Your task to perform on an android device: turn pop-ups off in chrome Image 0: 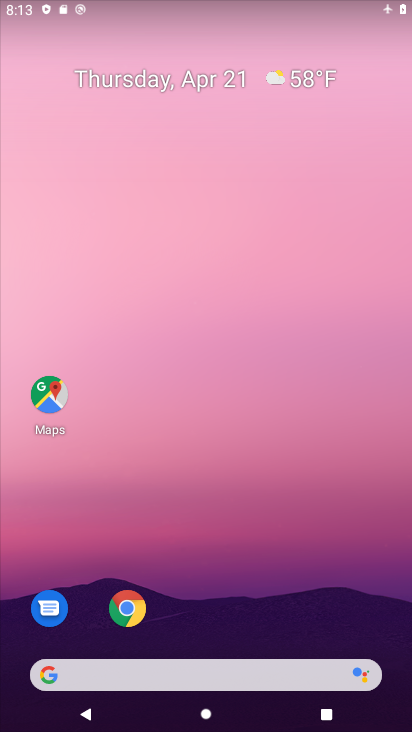
Step 0: click (131, 613)
Your task to perform on an android device: turn pop-ups off in chrome Image 1: 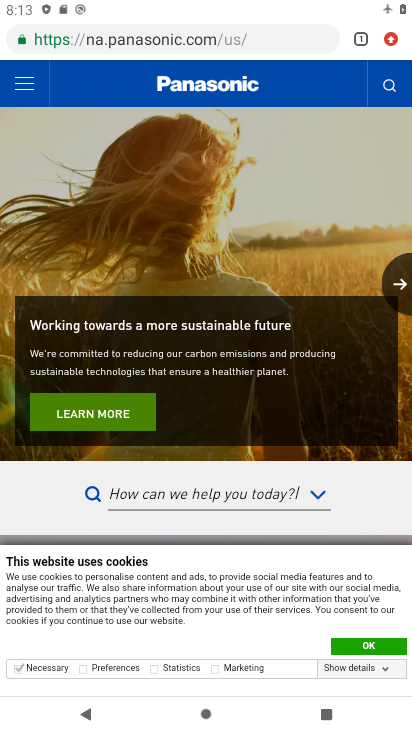
Step 1: click (390, 37)
Your task to perform on an android device: turn pop-ups off in chrome Image 2: 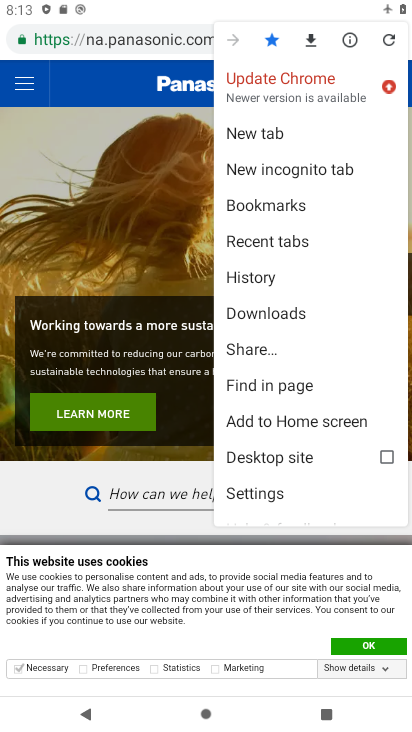
Step 2: click (279, 486)
Your task to perform on an android device: turn pop-ups off in chrome Image 3: 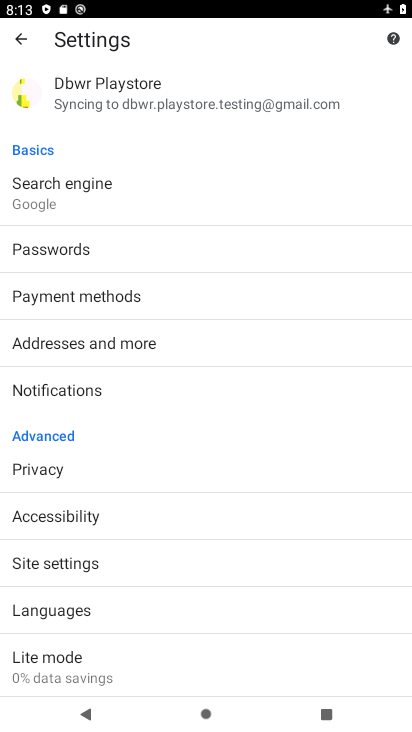
Step 3: click (242, 555)
Your task to perform on an android device: turn pop-ups off in chrome Image 4: 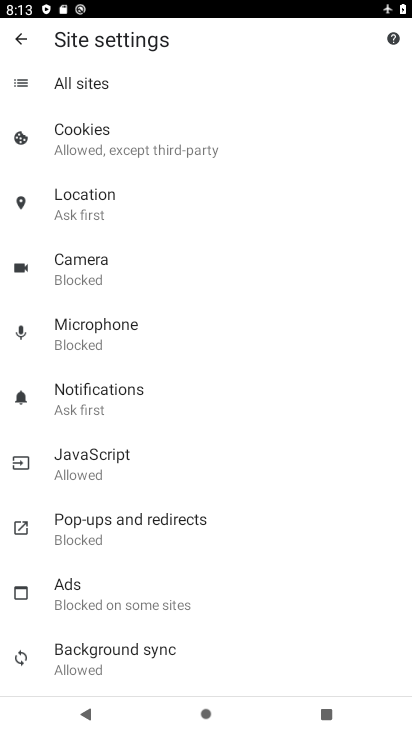
Step 4: click (255, 526)
Your task to perform on an android device: turn pop-ups off in chrome Image 5: 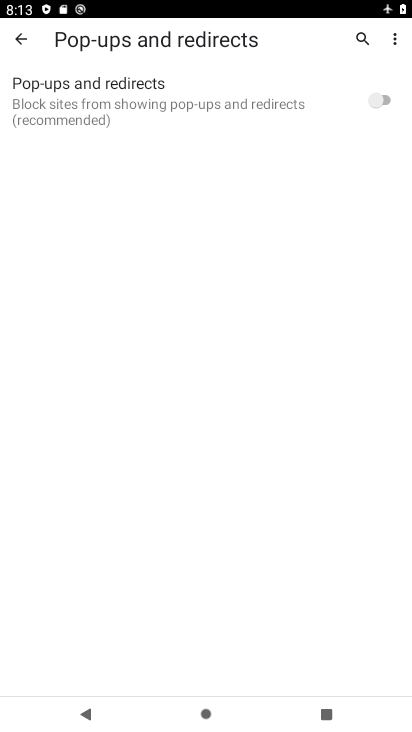
Step 5: task complete